Your task to perform on an android device: Go to settings Image 0: 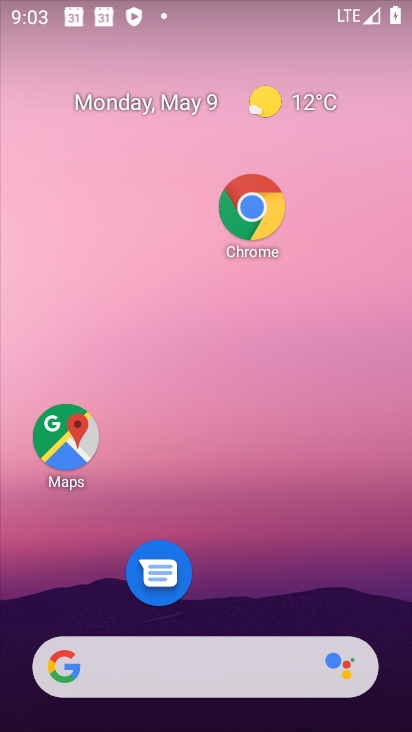
Step 0: drag from (284, 604) to (277, 442)
Your task to perform on an android device: Go to settings Image 1: 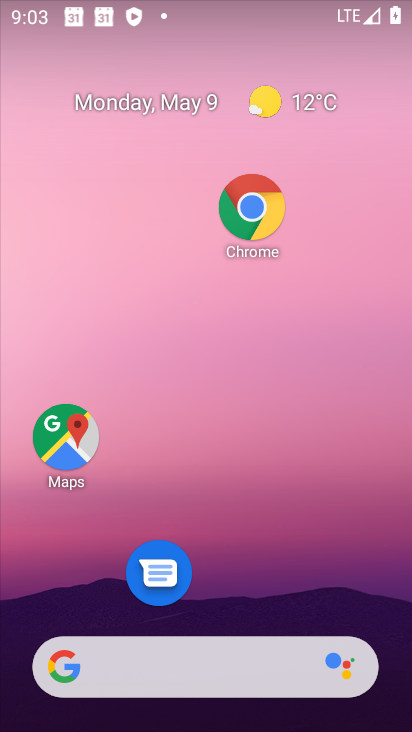
Step 1: drag from (315, 642) to (314, 256)
Your task to perform on an android device: Go to settings Image 2: 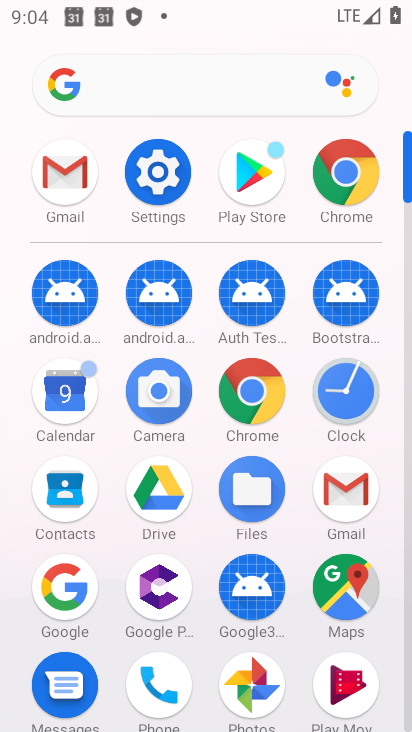
Step 2: click (139, 176)
Your task to perform on an android device: Go to settings Image 3: 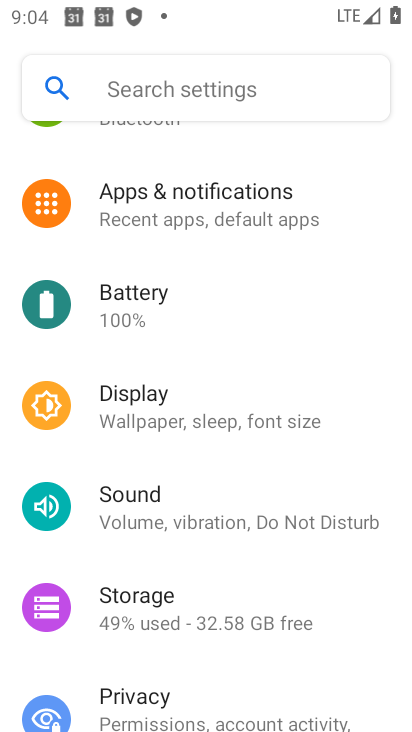
Step 3: task complete